Your task to perform on an android device: Toggle the flashlight Image 0: 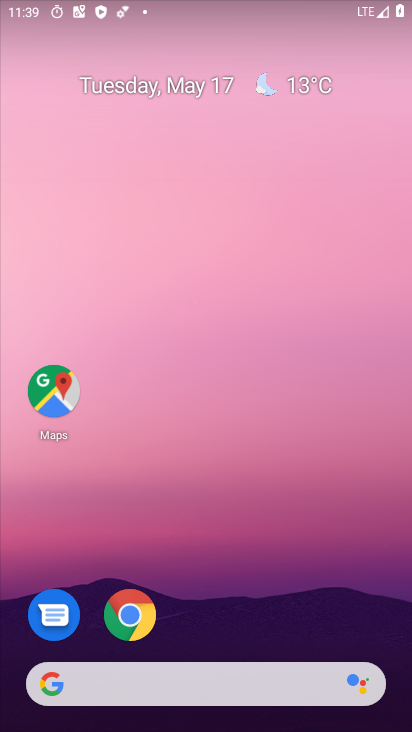
Step 0: press home button
Your task to perform on an android device: Toggle the flashlight Image 1: 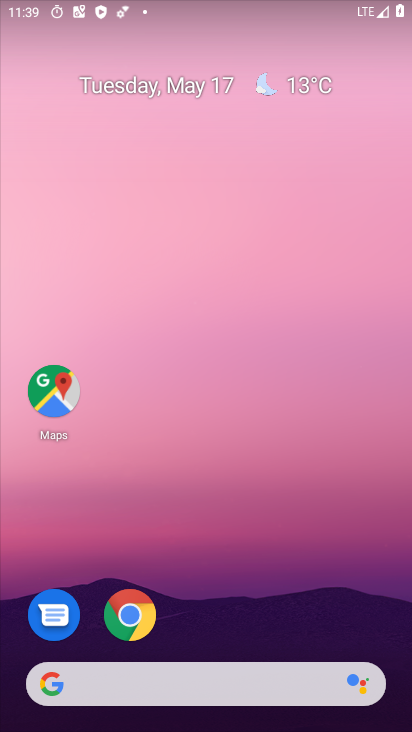
Step 1: task complete